Your task to perform on an android device: Search for Italian restaurants on Maps Image 0: 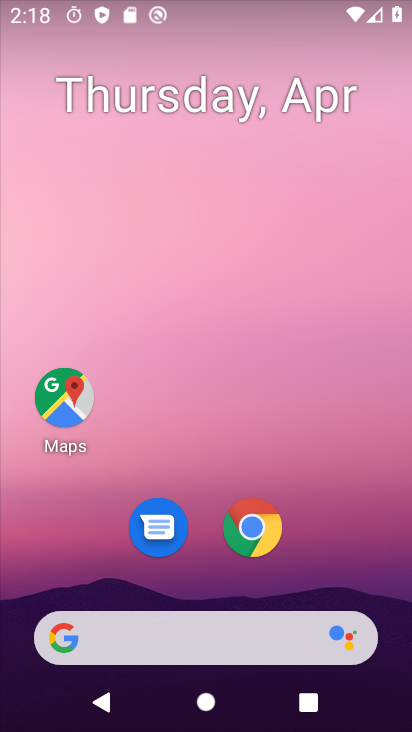
Step 0: click (62, 401)
Your task to perform on an android device: Search for Italian restaurants on Maps Image 1: 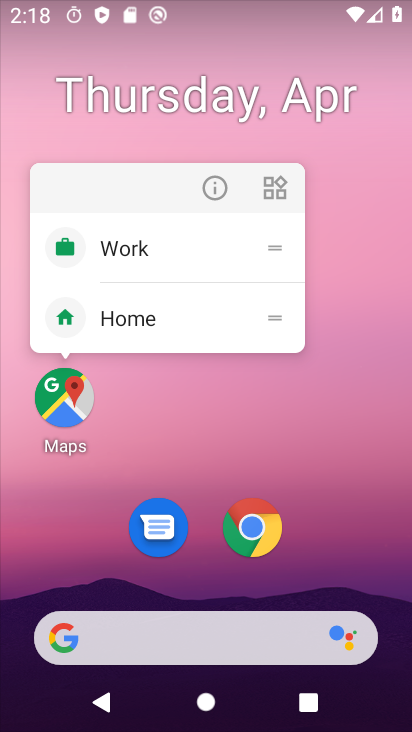
Step 1: click (62, 401)
Your task to perform on an android device: Search for Italian restaurants on Maps Image 2: 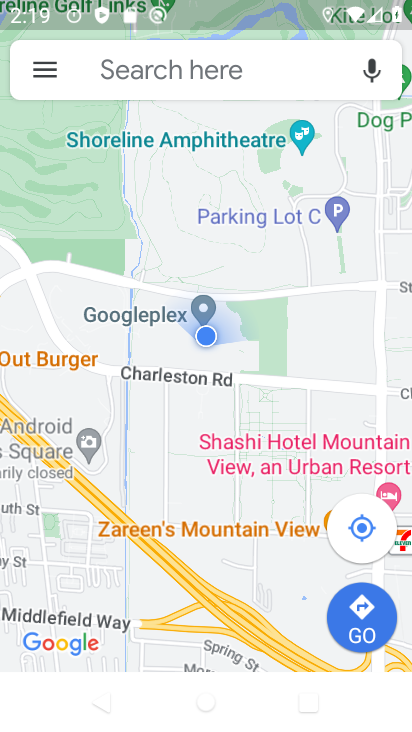
Step 2: click (292, 77)
Your task to perform on an android device: Search for Italian restaurants on Maps Image 3: 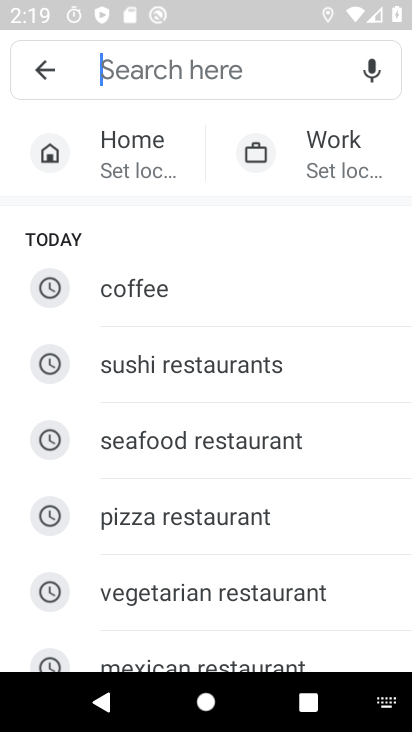
Step 3: type "Italian restaurants"
Your task to perform on an android device: Search for Italian restaurants on Maps Image 4: 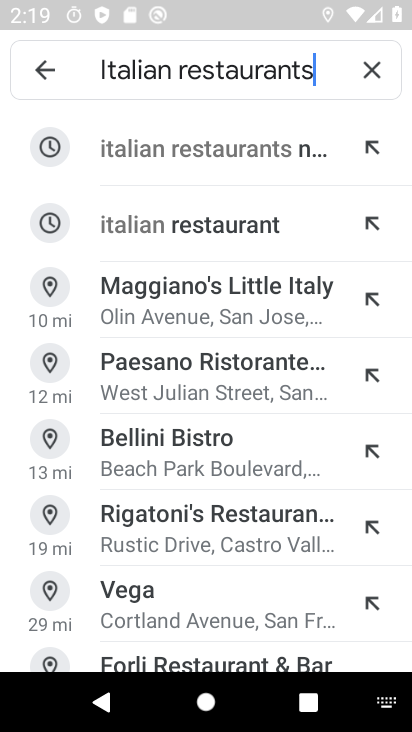
Step 4: press enter
Your task to perform on an android device: Search for Italian restaurants on Maps Image 5: 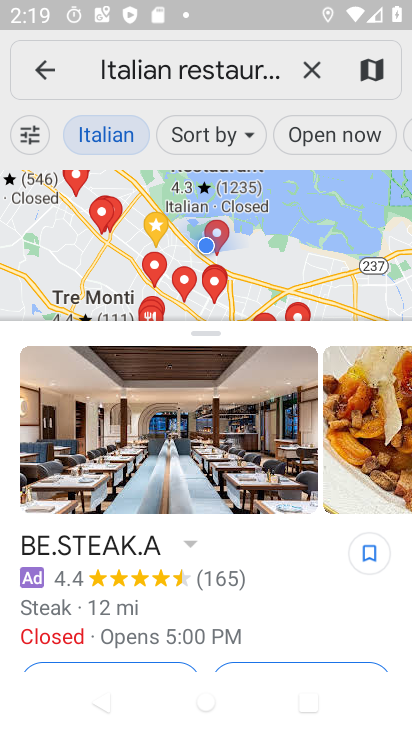
Step 5: task complete